Your task to perform on an android device: Go to wifi settings Image 0: 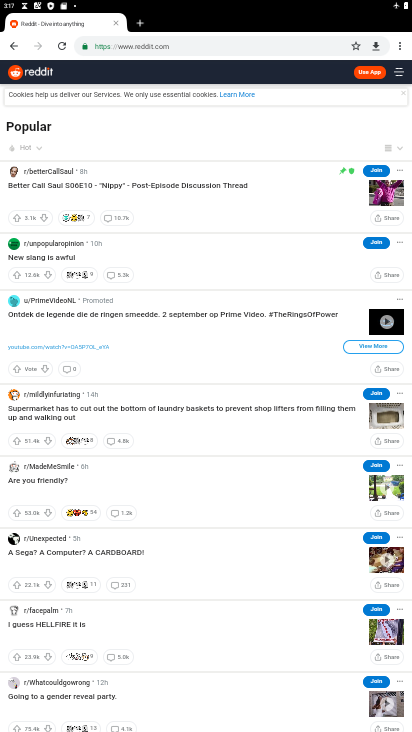
Step 0: press home button
Your task to perform on an android device: Go to wifi settings Image 1: 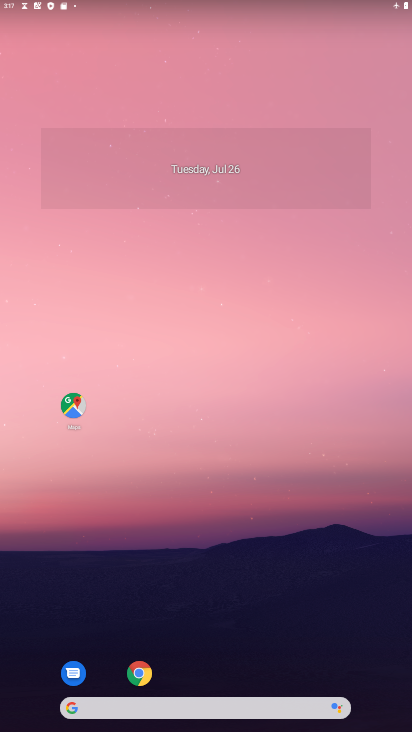
Step 1: drag from (197, 707) to (306, 52)
Your task to perform on an android device: Go to wifi settings Image 2: 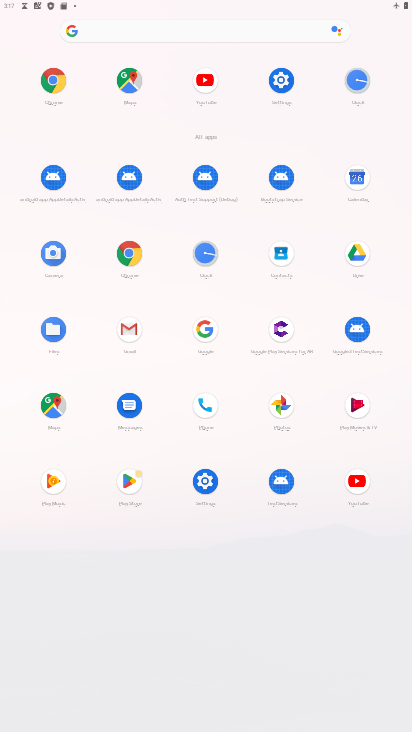
Step 2: click (279, 78)
Your task to perform on an android device: Go to wifi settings Image 3: 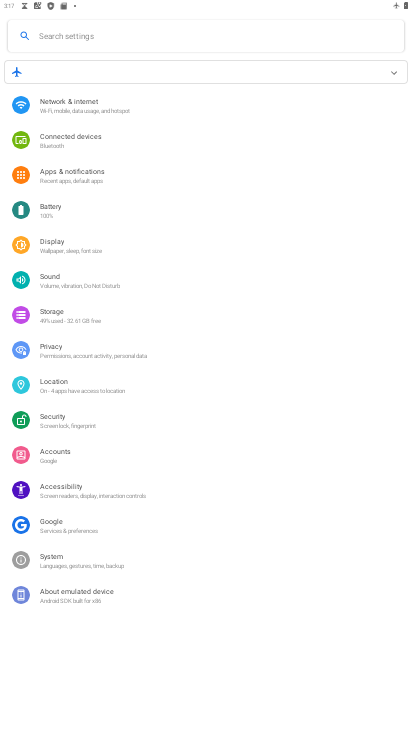
Step 3: click (83, 108)
Your task to perform on an android device: Go to wifi settings Image 4: 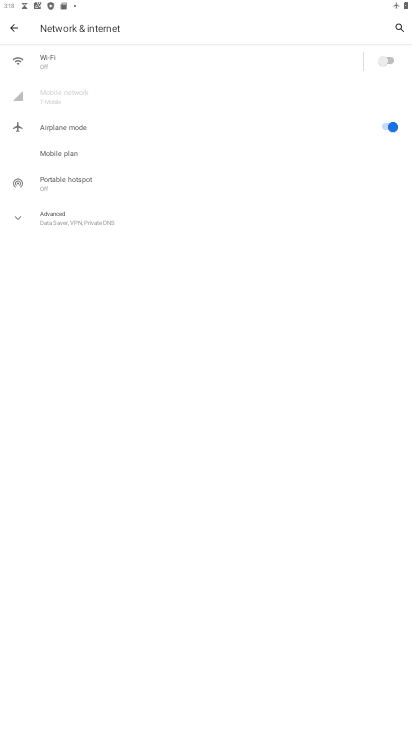
Step 4: click (55, 62)
Your task to perform on an android device: Go to wifi settings Image 5: 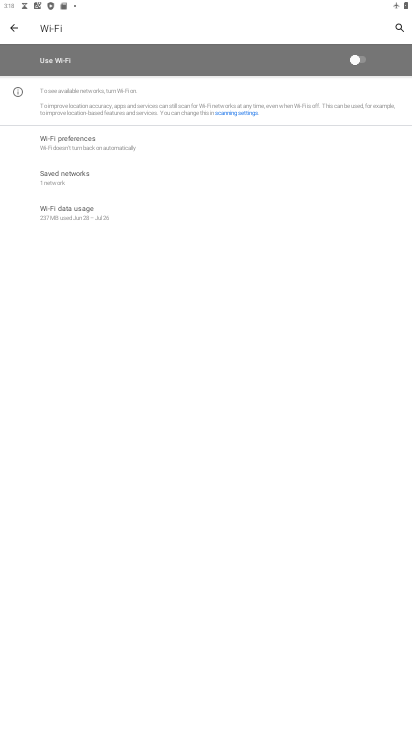
Step 5: task complete